Your task to perform on an android device: turn off priority inbox in the gmail app Image 0: 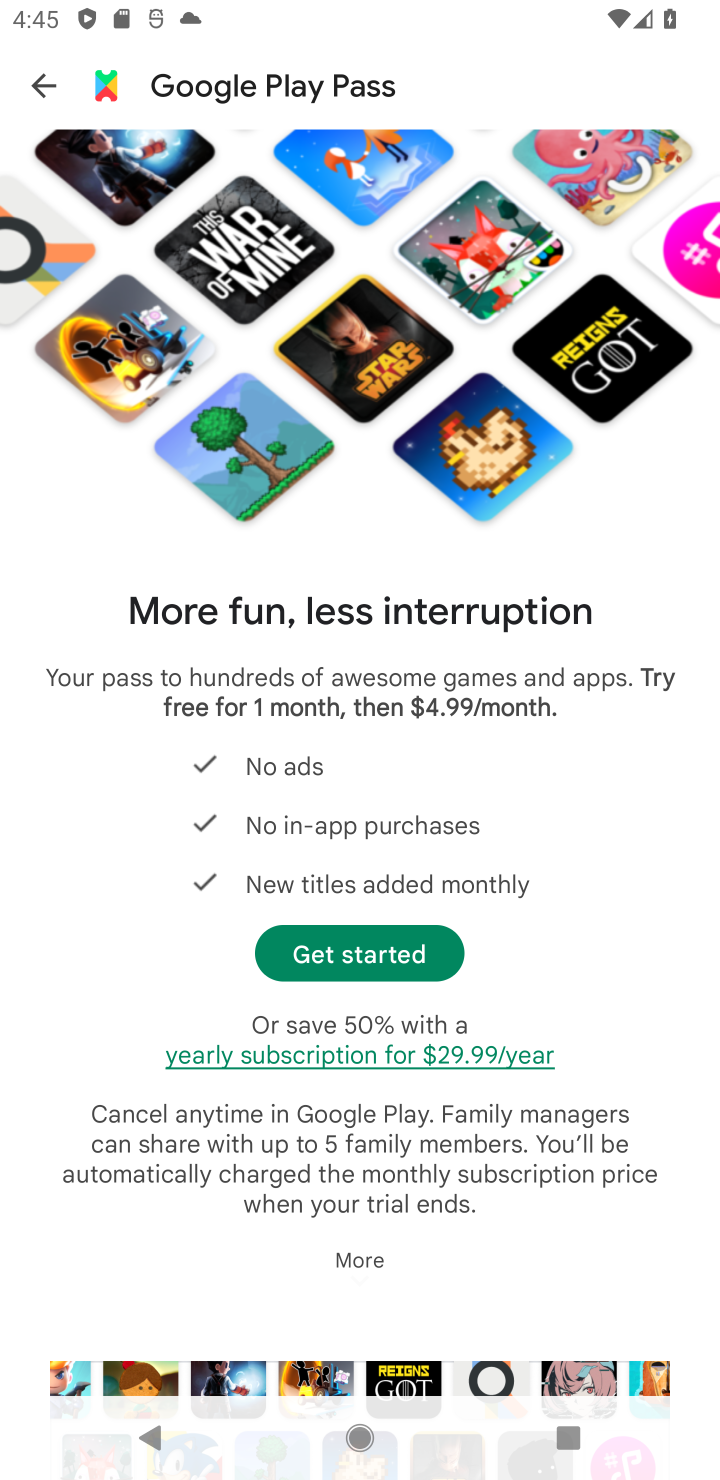
Step 0: press home button
Your task to perform on an android device: turn off priority inbox in the gmail app Image 1: 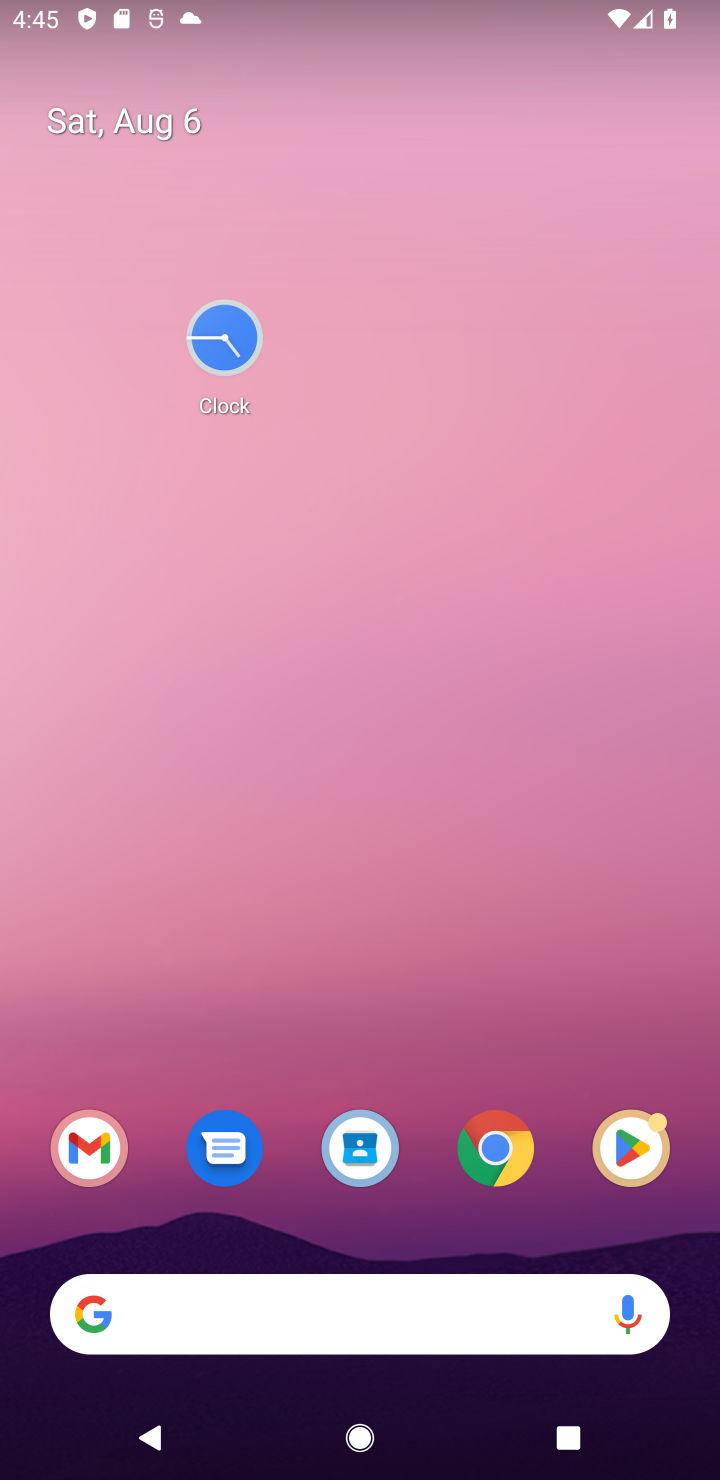
Step 1: drag from (478, 647) to (385, 10)
Your task to perform on an android device: turn off priority inbox in the gmail app Image 2: 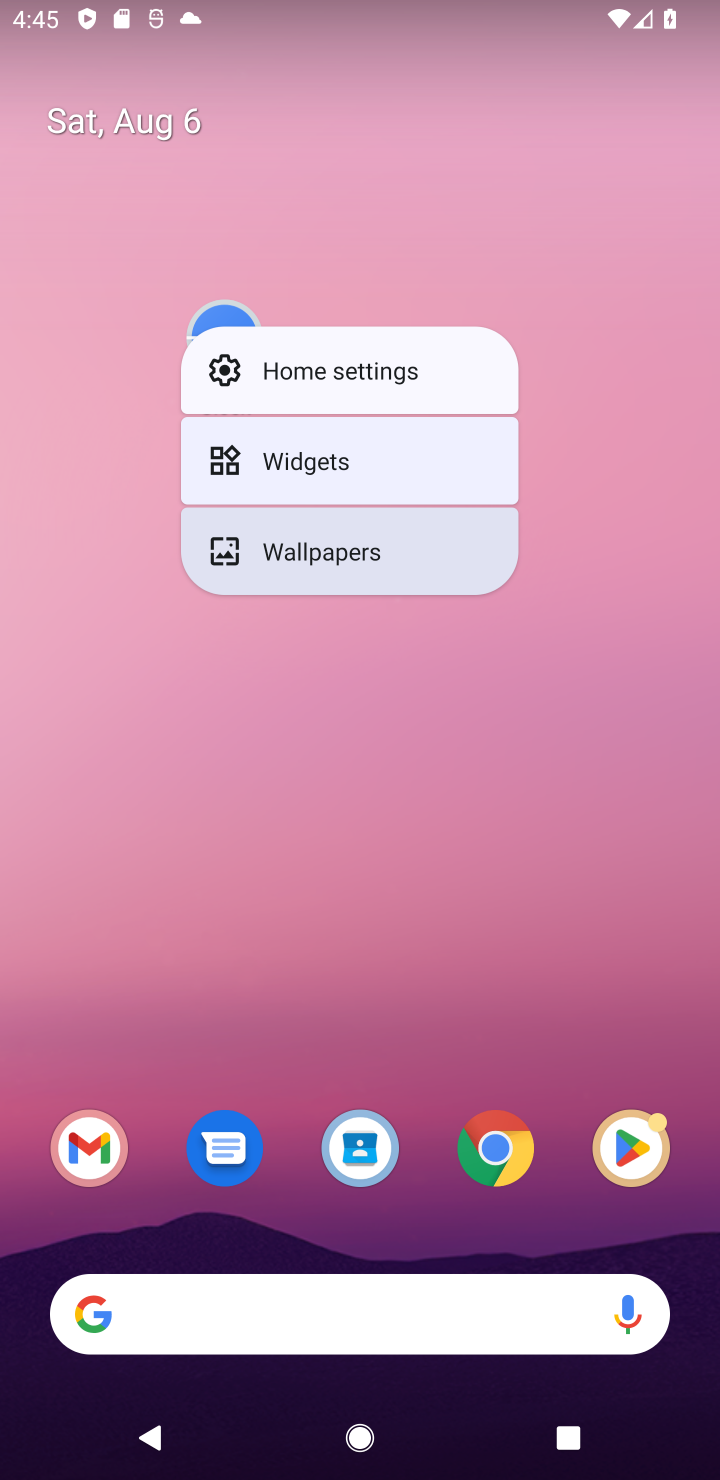
Step 2: click (410, 1227)
Your task to perform on an android device: turn off priority inbox in the gmail app Image 3: 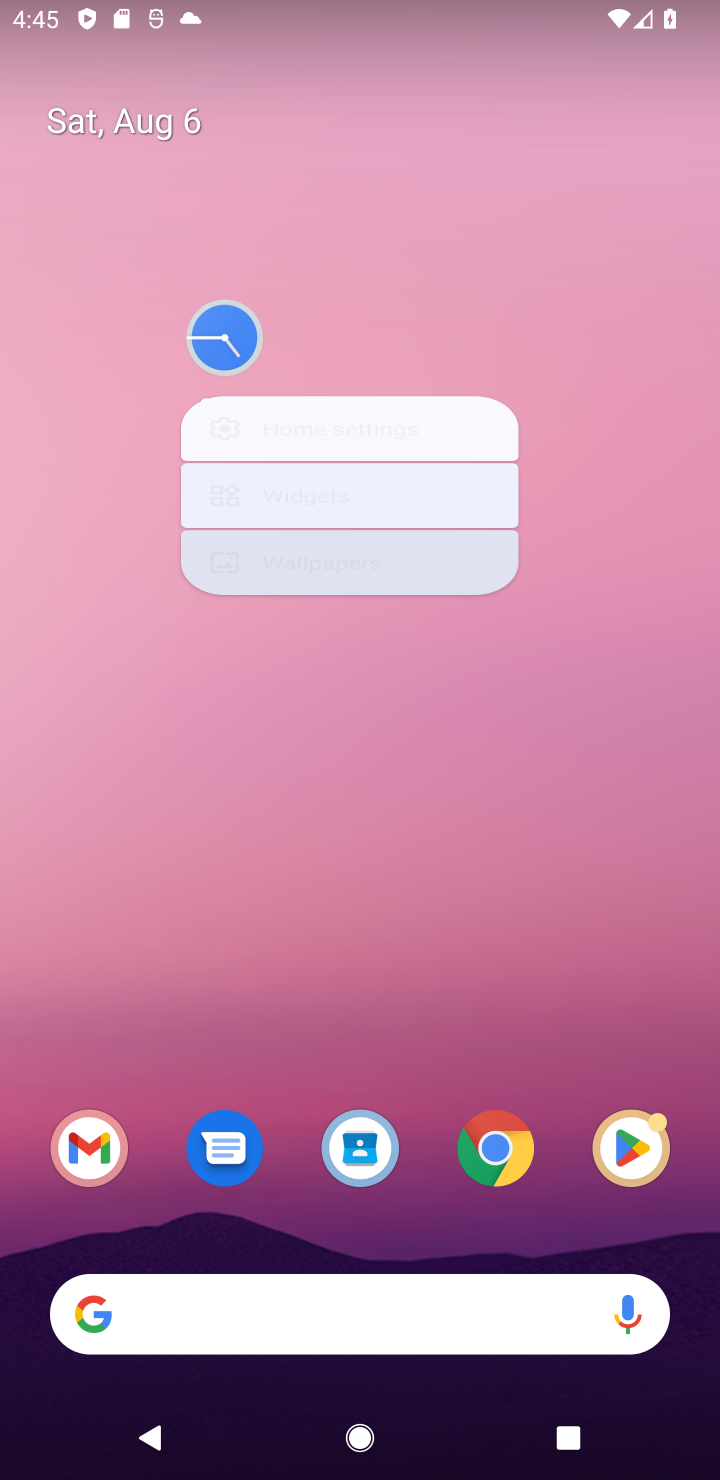
Step 3: drag from (410, 1225) to (513, 25)
Your task to perform on an android device: turn off priority inbox in the gmail app Image 4: 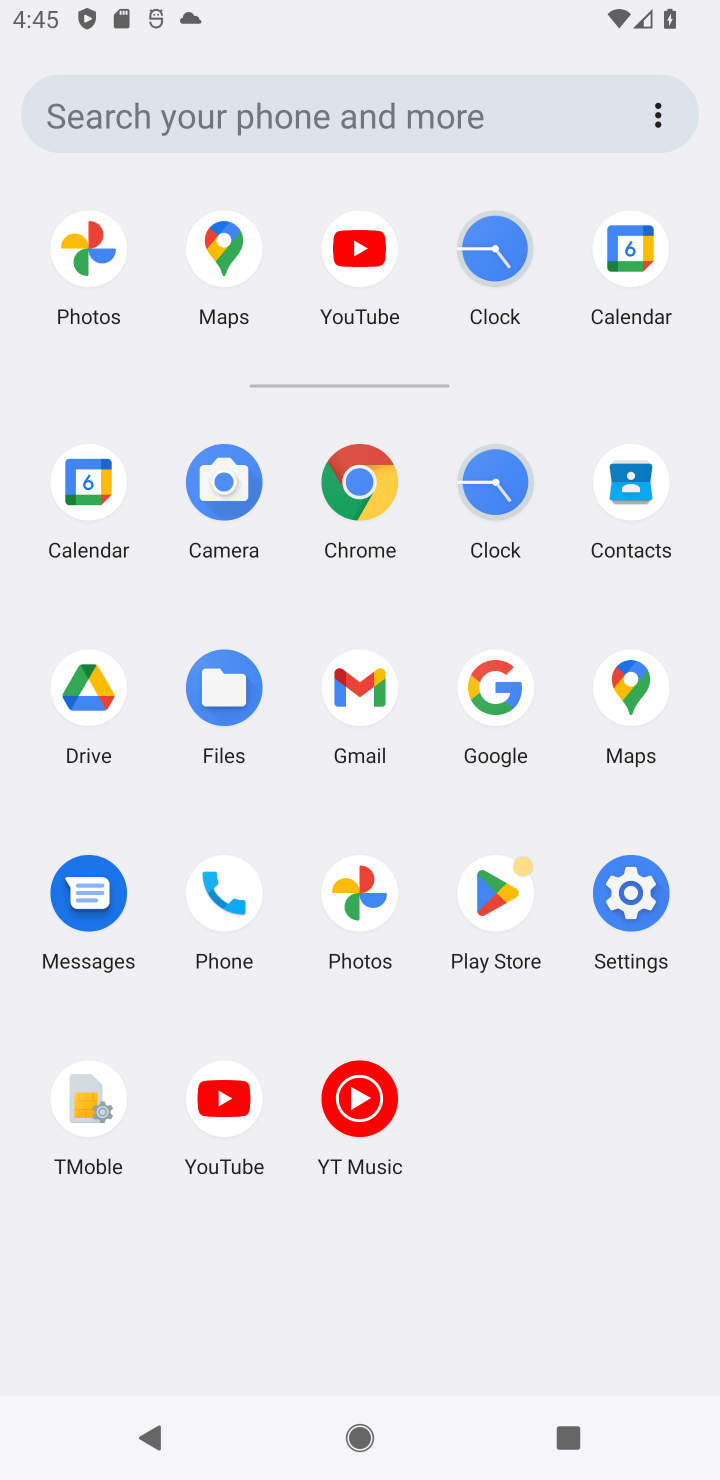
Step 4: click (348, 685)
Your task to perform on an android device: turn off priority inbox in the gmail app Image 5: 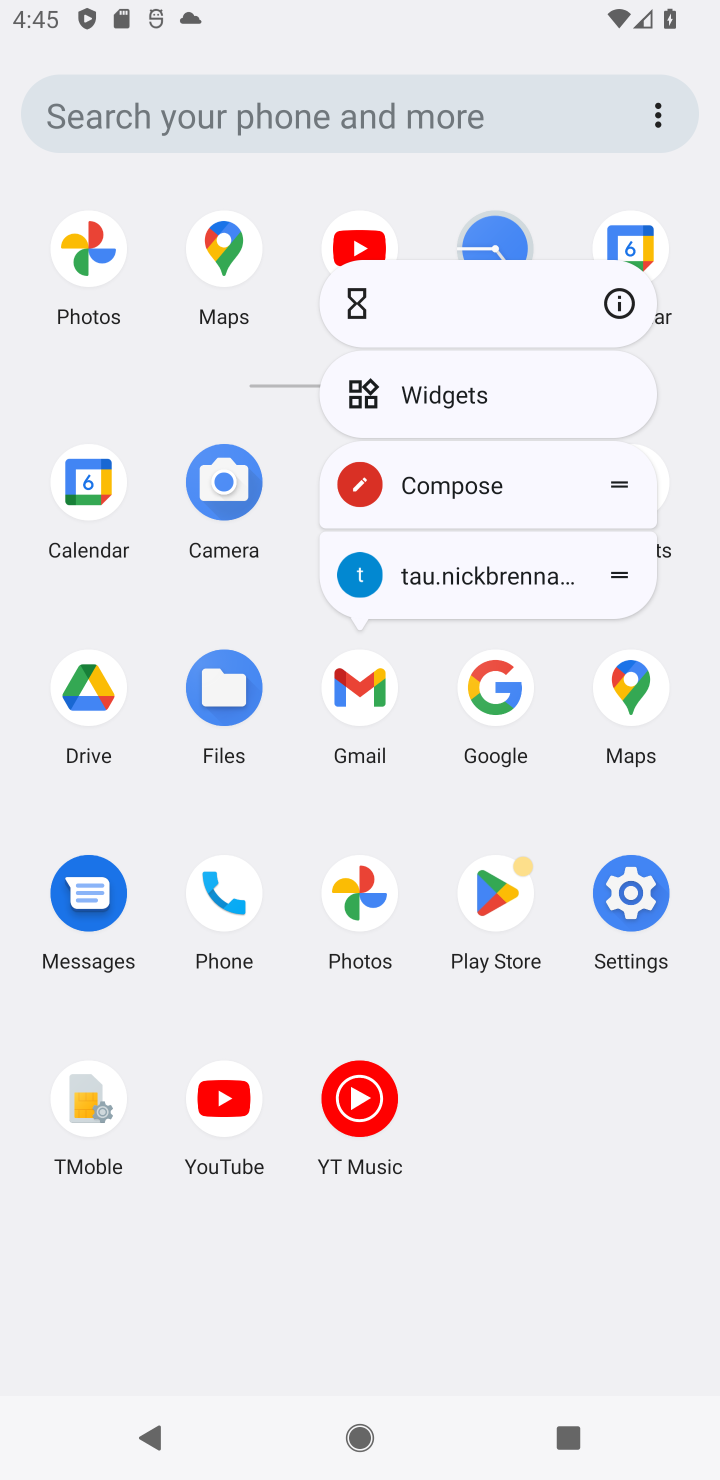
Step 5: click (621, 288)
Your task to perform on an android device: turn off priority inbox in the gmail app Image 6: 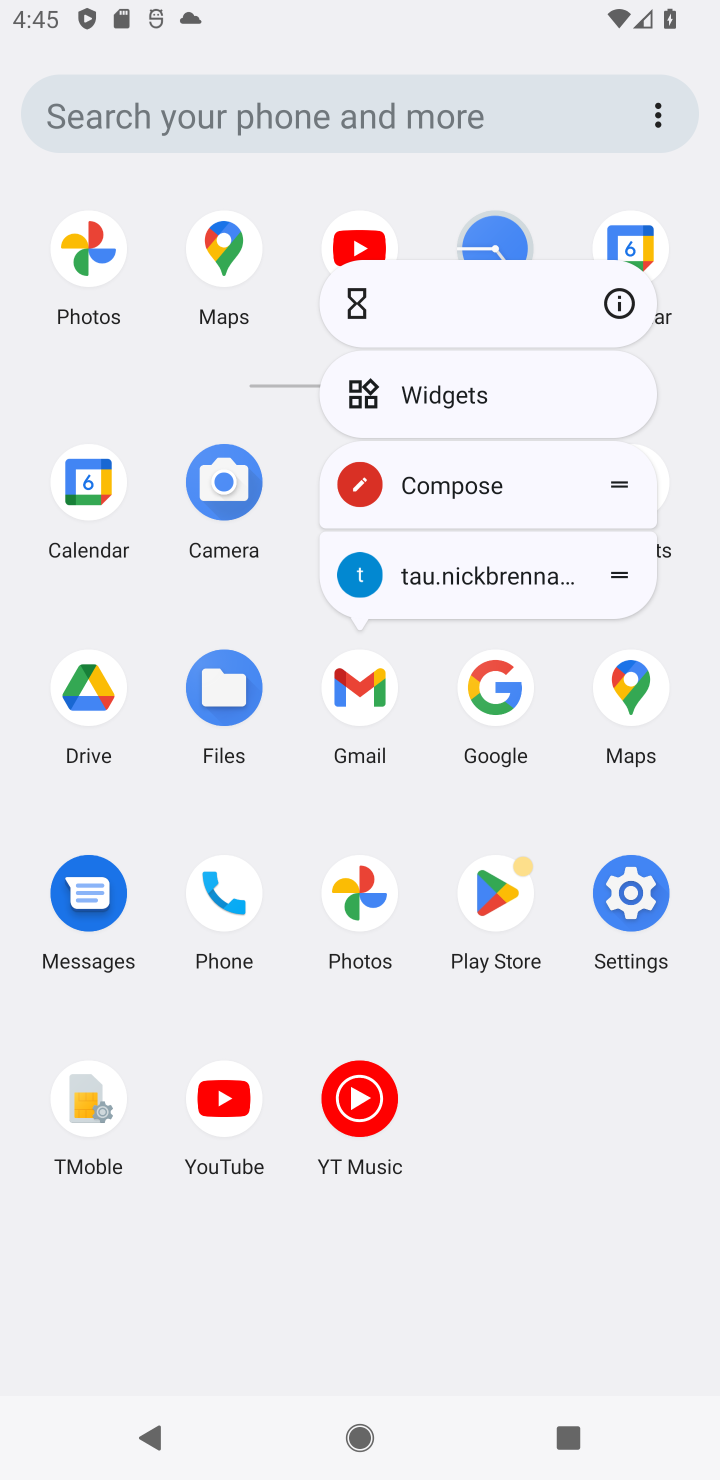
Step 6: click (378, 662)
Your task to perform on an android device: turn off priority inbox in the gmail app Image 7: 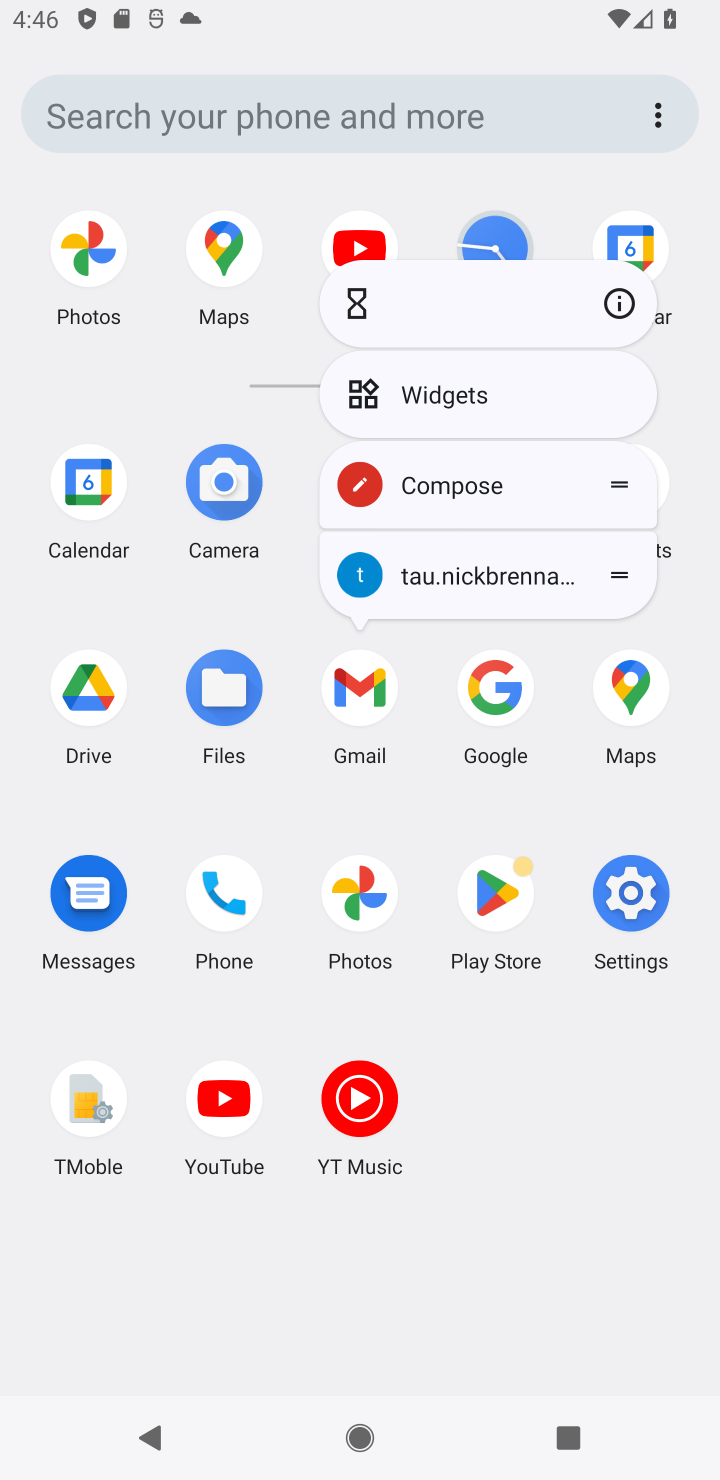
Step 7: click (621, 298)
Your task to perform on an android device: turn off priority inbox in the gmail app Image 8: 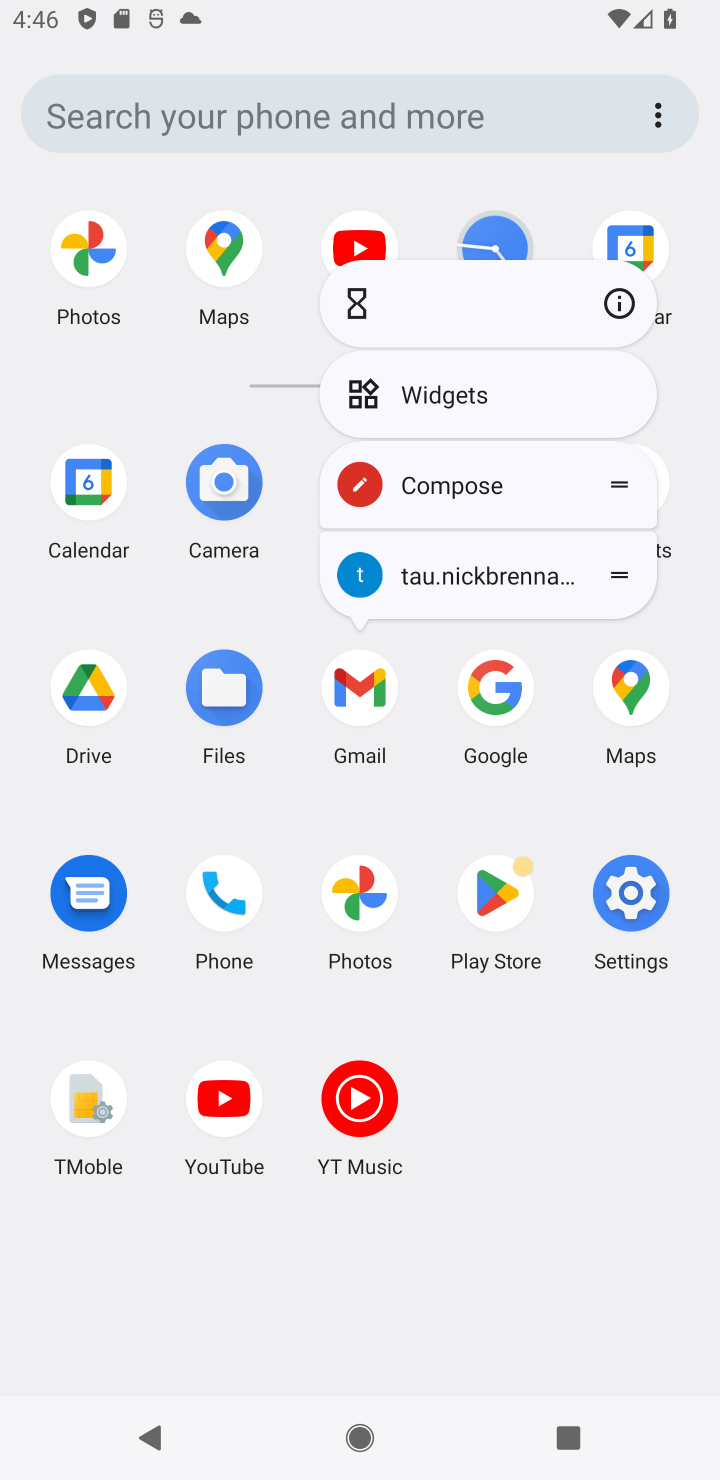
Step 8: click (621, 298)
Your task to perform on an android device: turn off priority inbox in the gmail app Image 9: 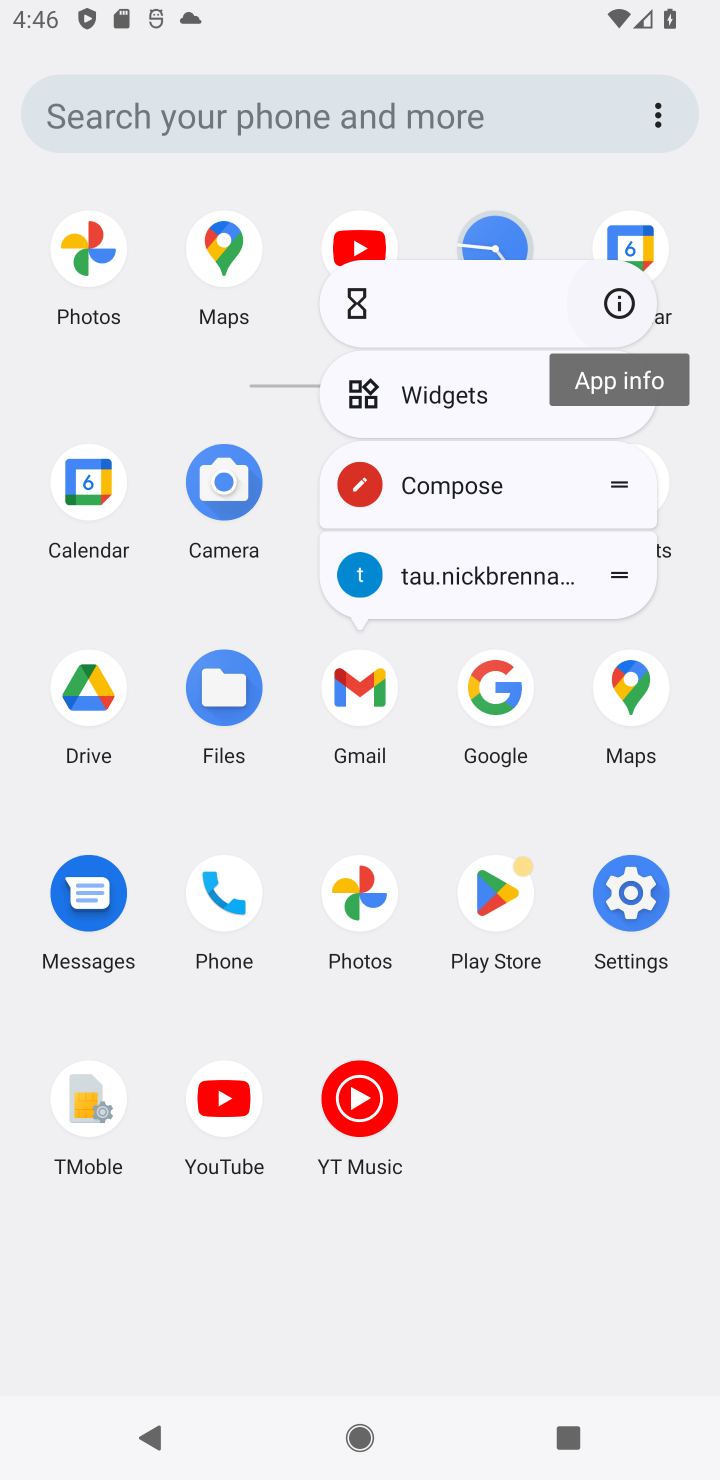
Step 9: click (354, 681)
Your task to perform on an android device: turn off priority inbox in the gmail app Image 10: 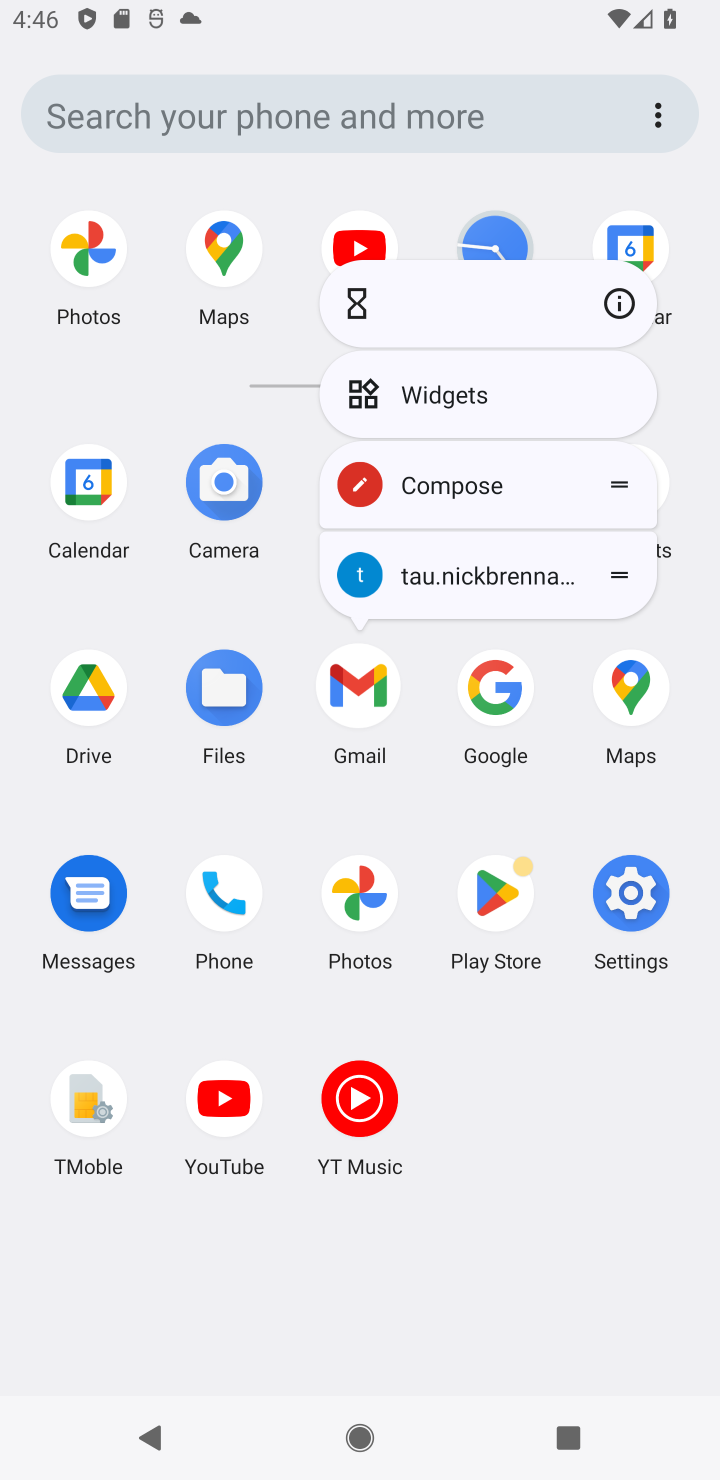
Step 10: click (352, 679)
Your task to perform on an android device: turn off priority inbox in the gmail app Image 11: 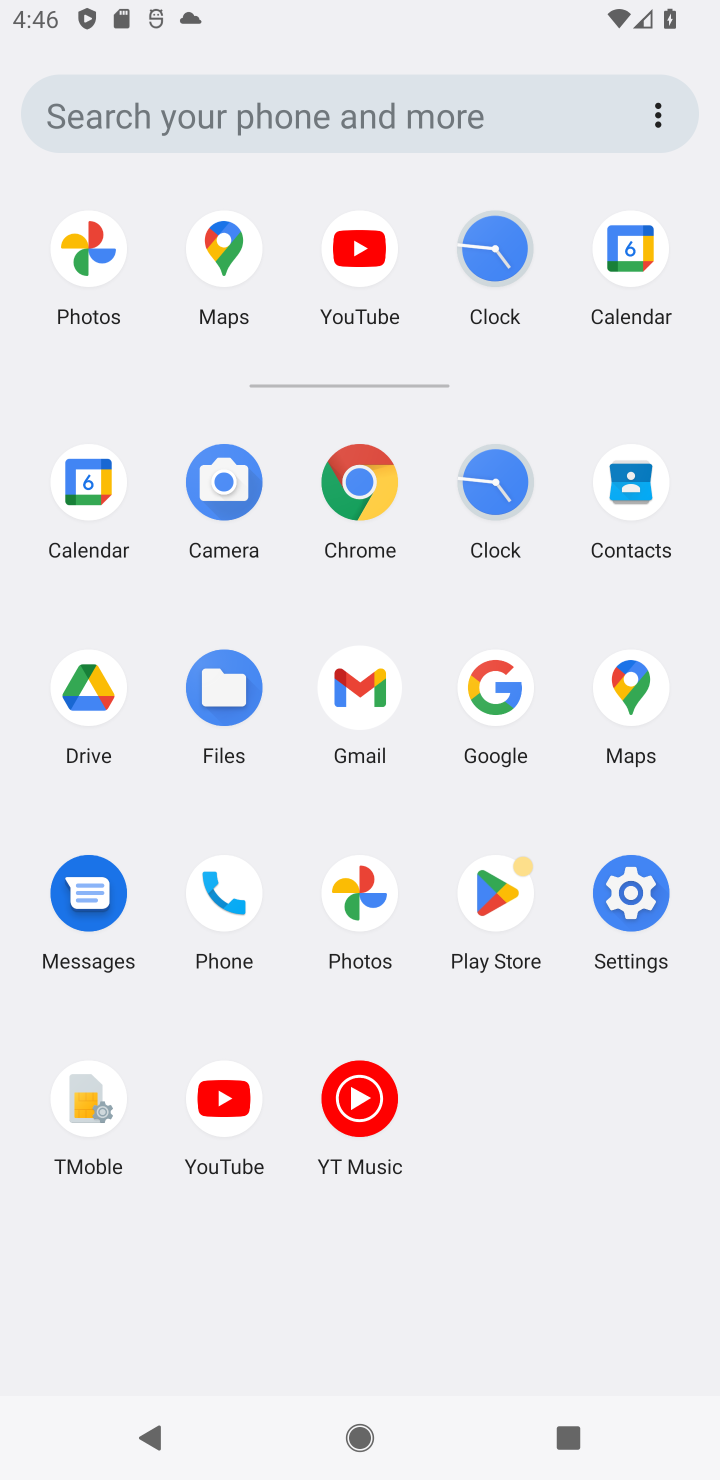
Step 11: click (352, 675)
Your task to perform on an android device: turn off priority inbox in the gmail app Image 12: 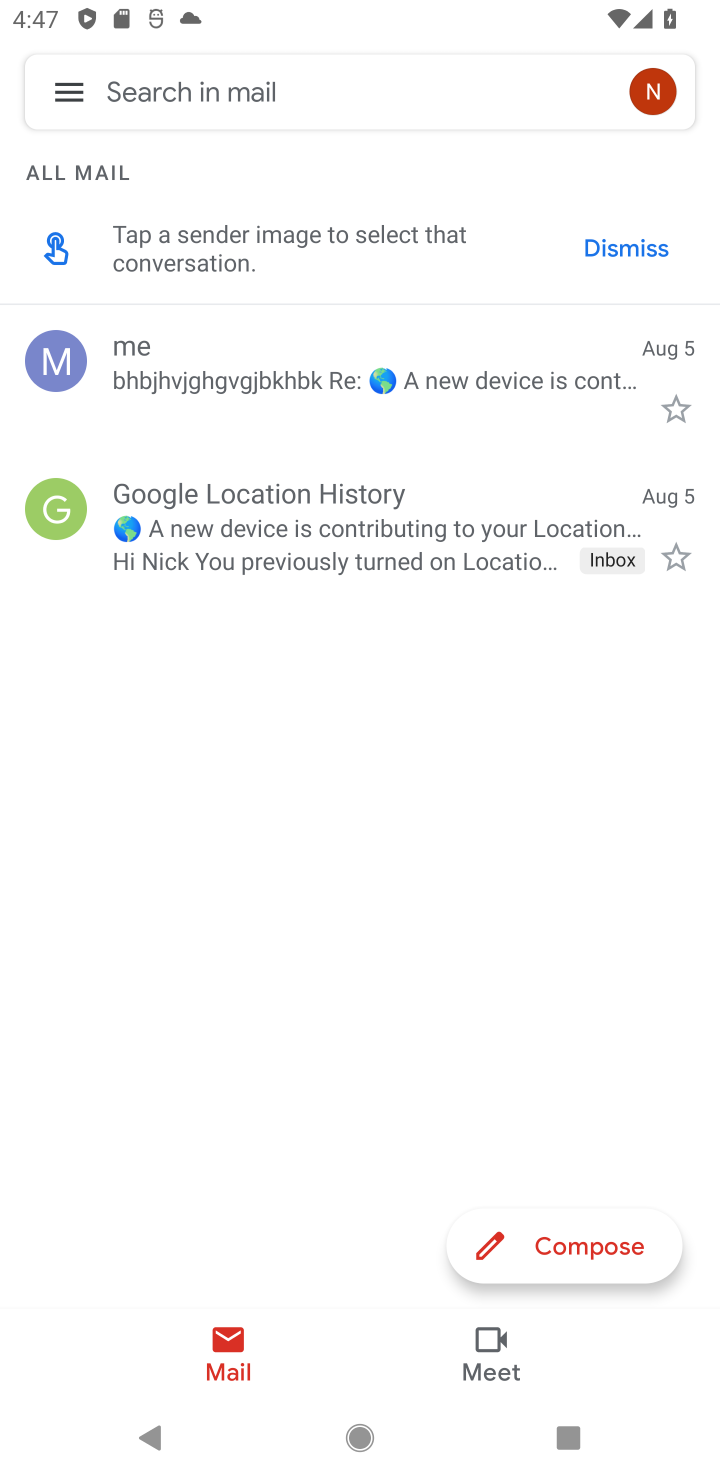
Step 12: drag from (359, 1105) to (432, 484)
Your task to perform on an android device: turn off priority inbox in the gmail app Image 13: 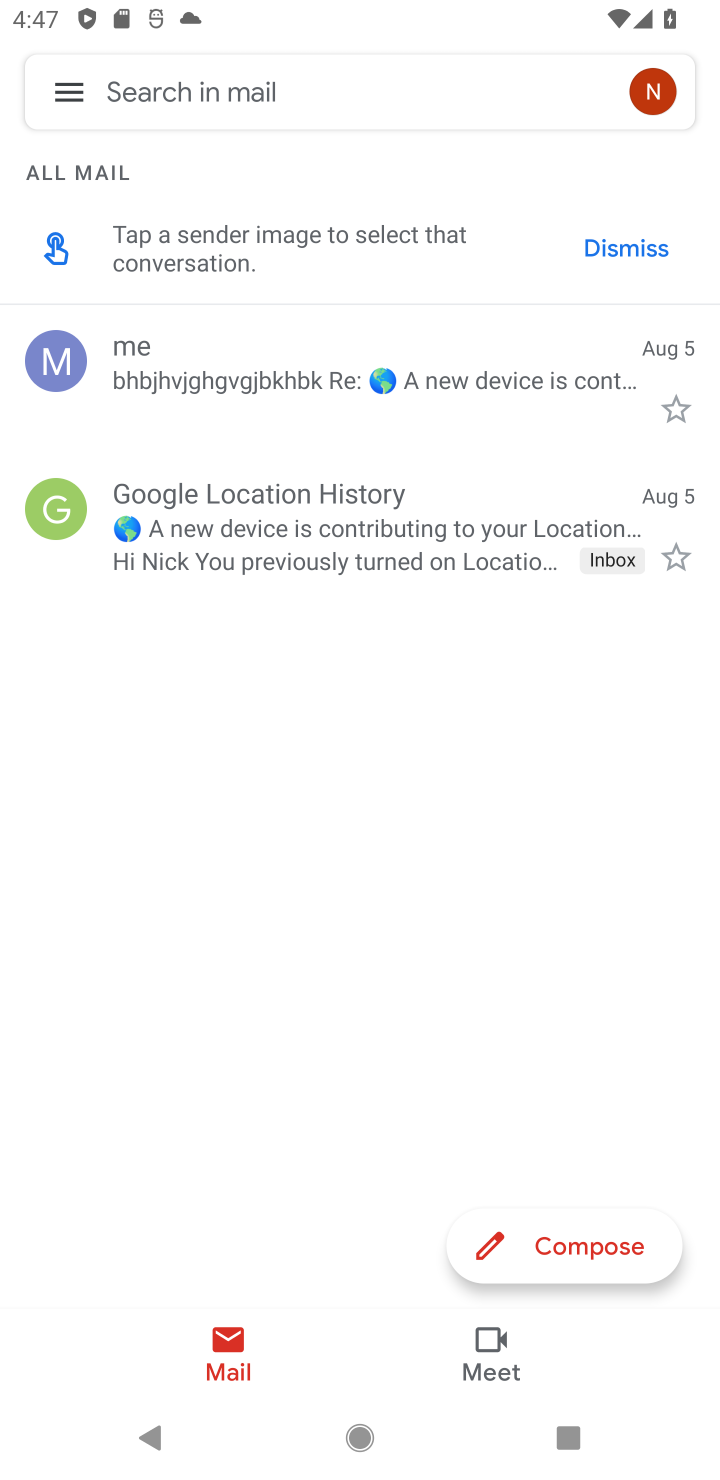
Step 13: drag from (378, 1048) to (458, 310)
Your task to perform on an android device: turn off priority inbox in the gmail app Image 14: 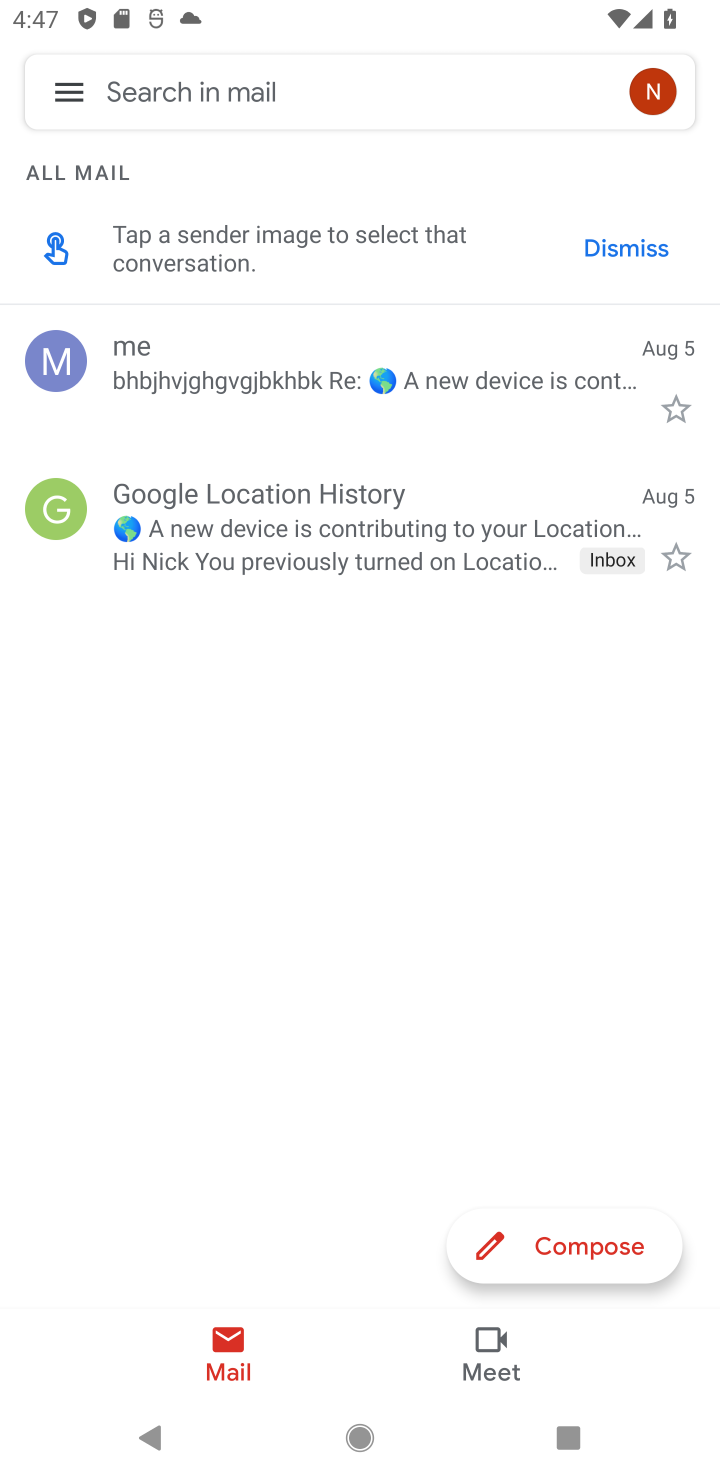
Step 14: drag from (340, 856) to (428, 415)
Your task to perform on an android device: turn off priority inbox in the gmail app Image 15: 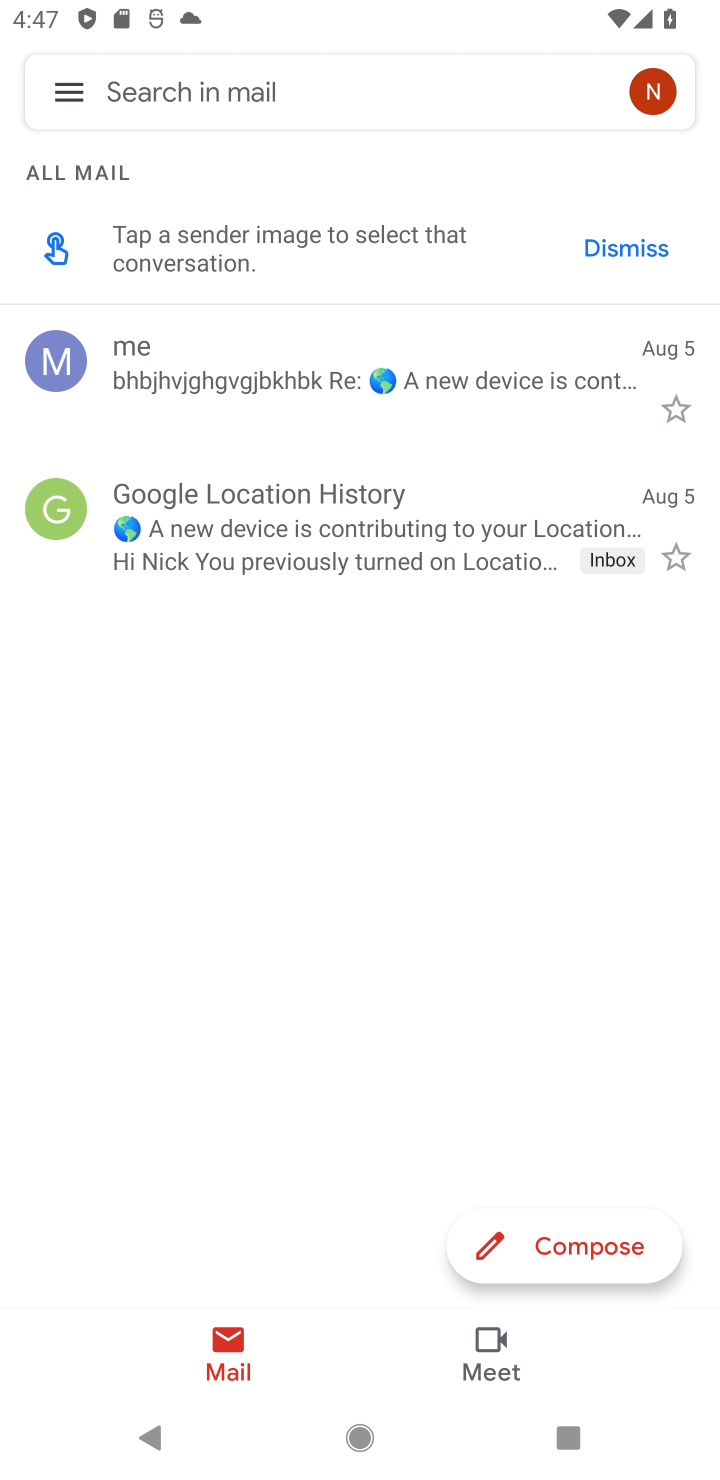
Step 15: click (66, 82)
Your task to perform on an android device: turn off priority inbox in the gmail app Image 16: 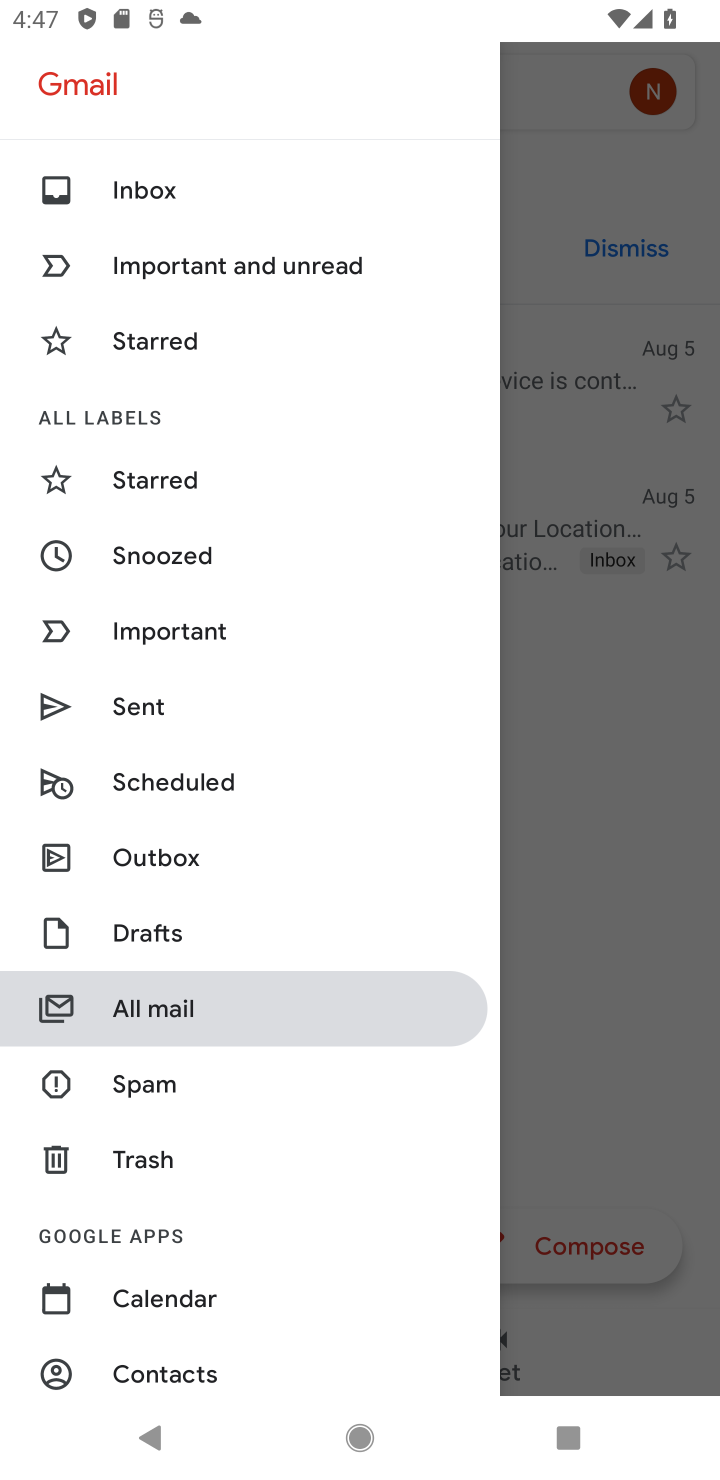
Step 16: drag from (154, 1081) to (336, 241)
Your task to perform on an android device: turn off priority inbox in the gmail app Image 17: 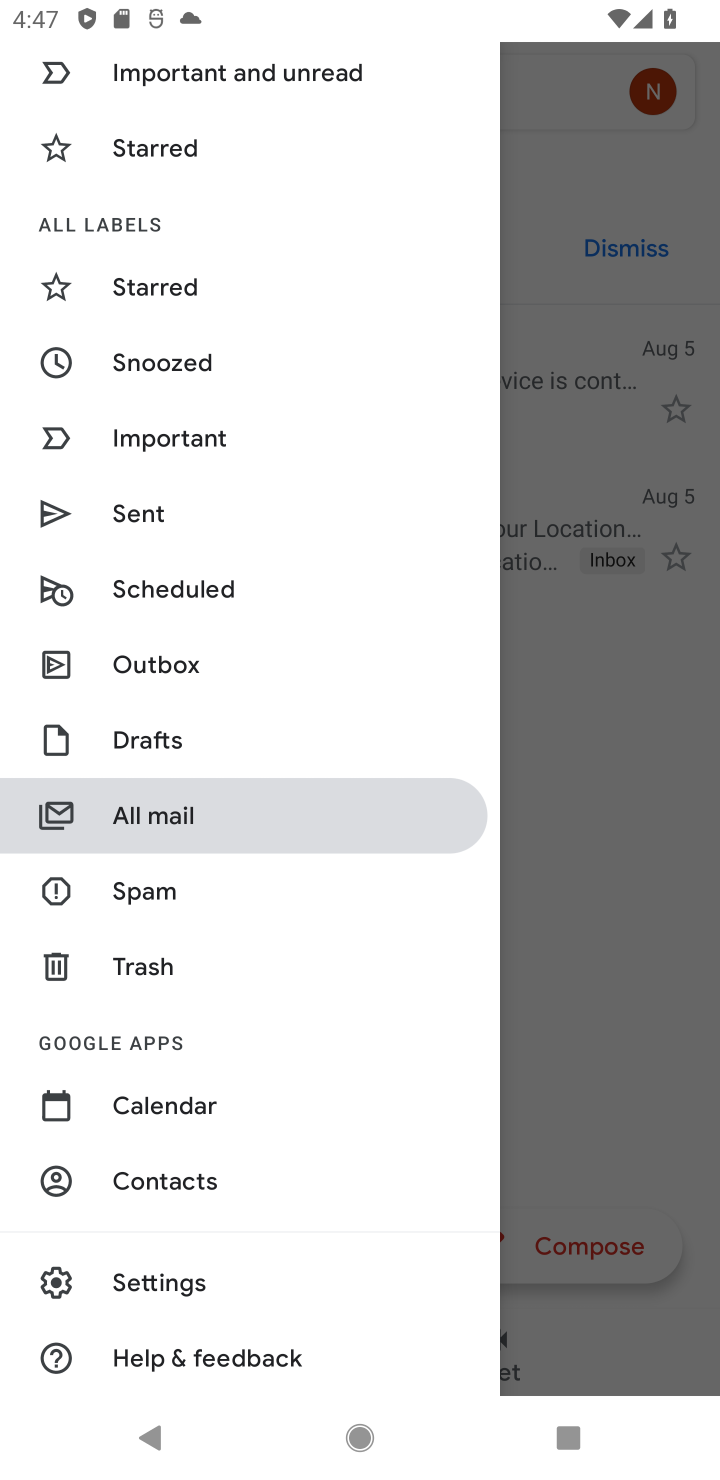
Step 17: click (121, 1295)
Your task to perform on an android device: turn off priority inbox in the gmail app Image 18: 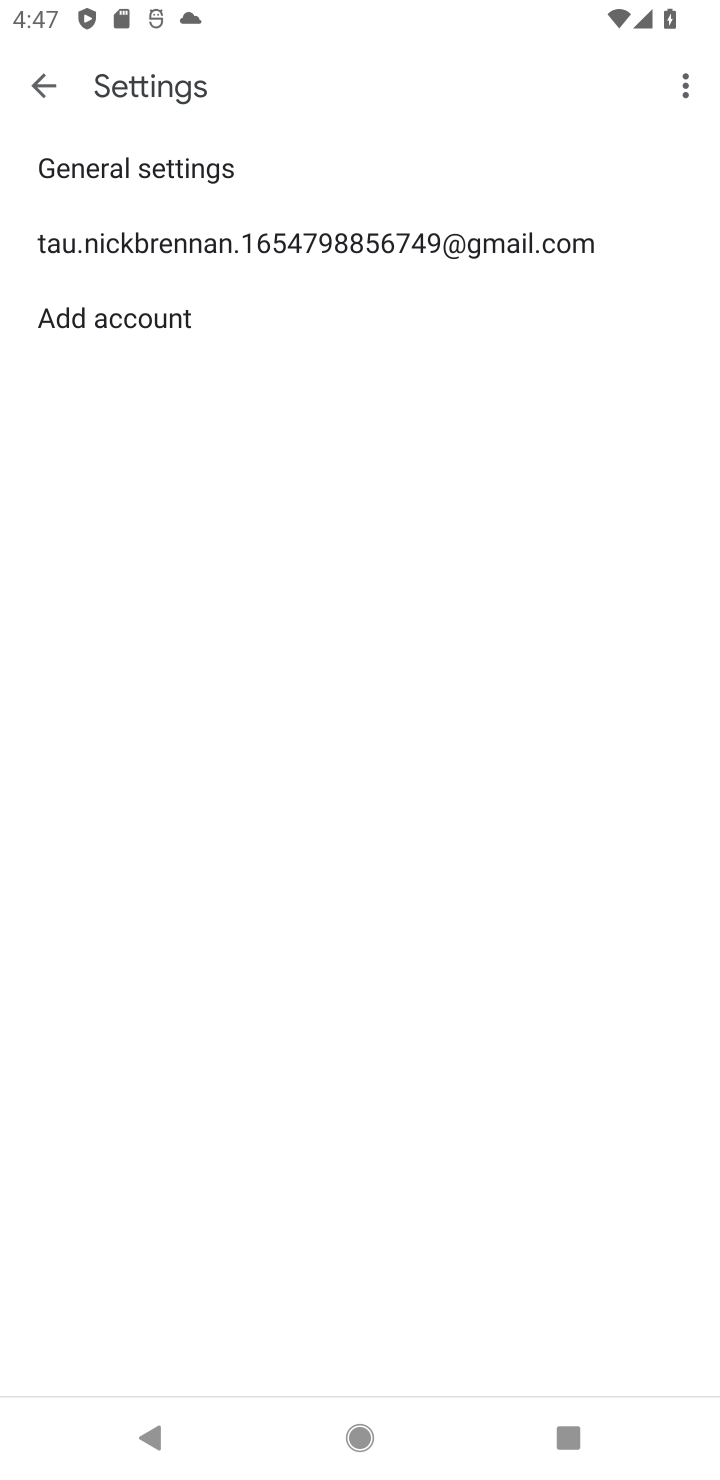
Step 18: click (169, 238)
Your task to perform on an android device: turn off priority inbox in the gmail app Image 19: 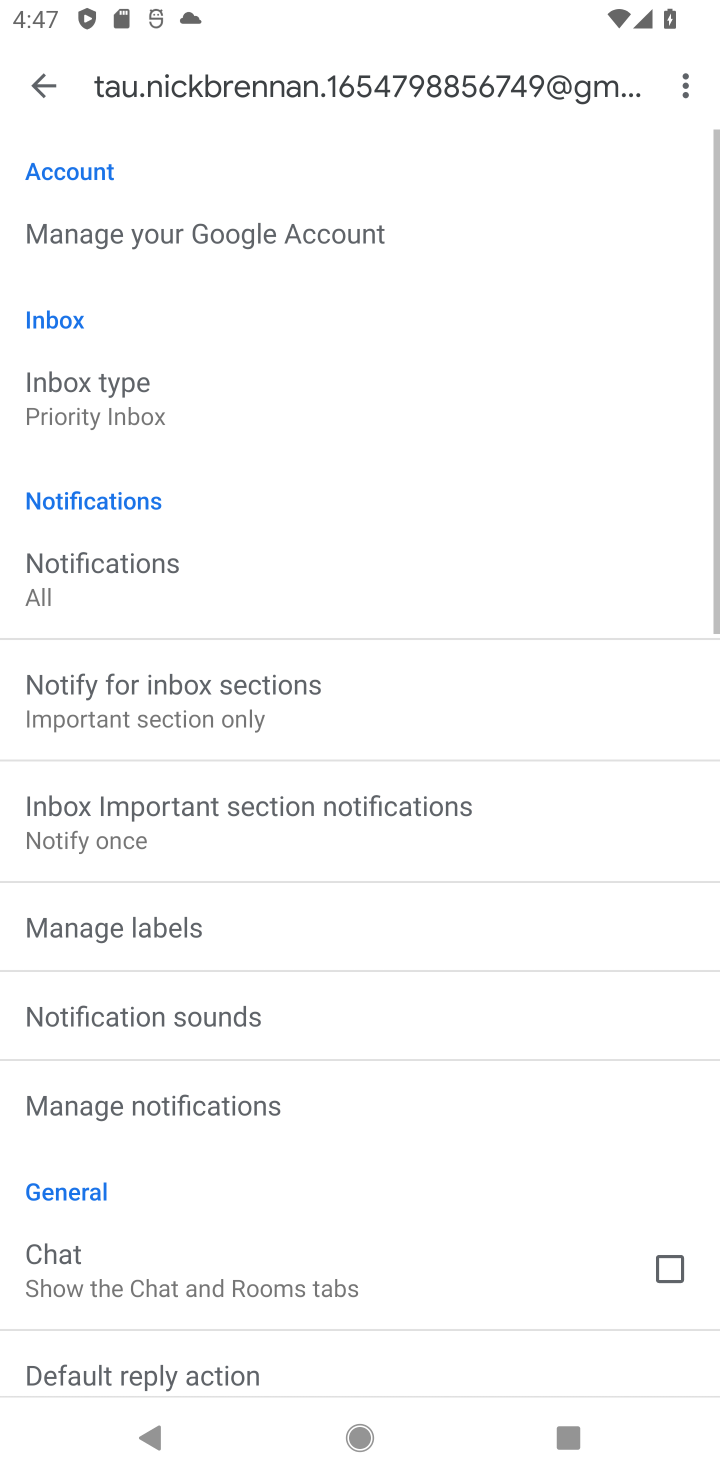
Step 19: drag from (220, 860) to (347, 1413)
Your task to perform on an android device: turn off priority inbox in the gmail app Image 20: 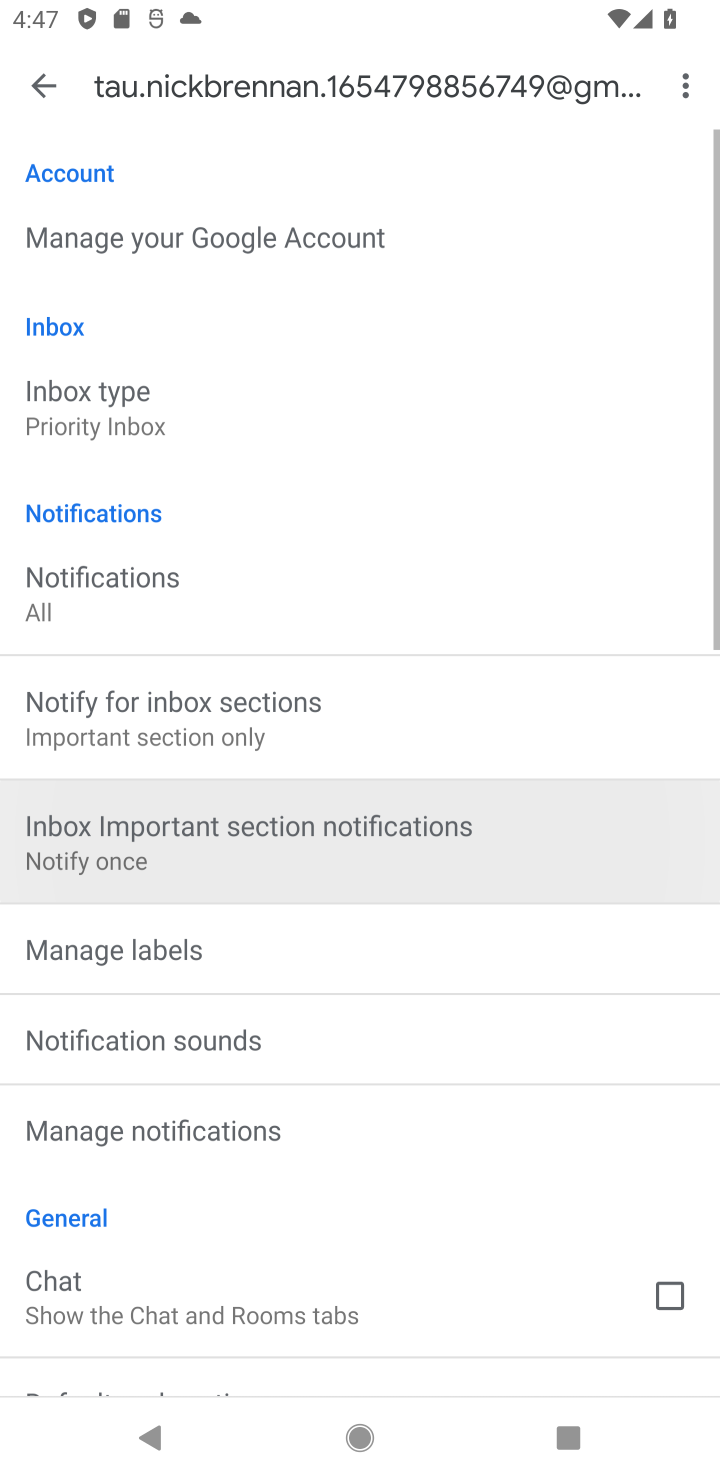
Step 20: click (202, 401)
Your task to perform on an android device: turn off priority inbox in the gmail app Image 21: 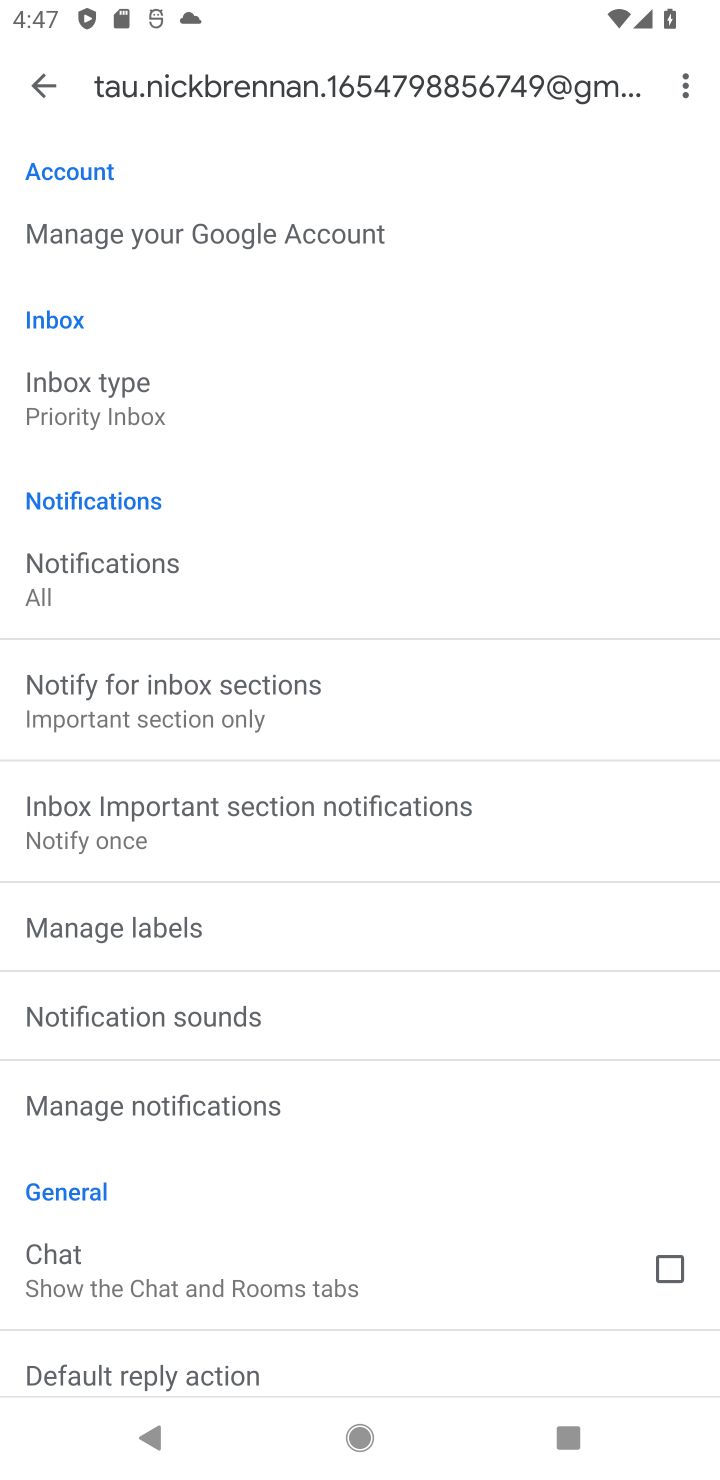
Step 21: click (202, 401)
Your task to perform on an android device: turn off priority inbox in the gmail app Image 22: 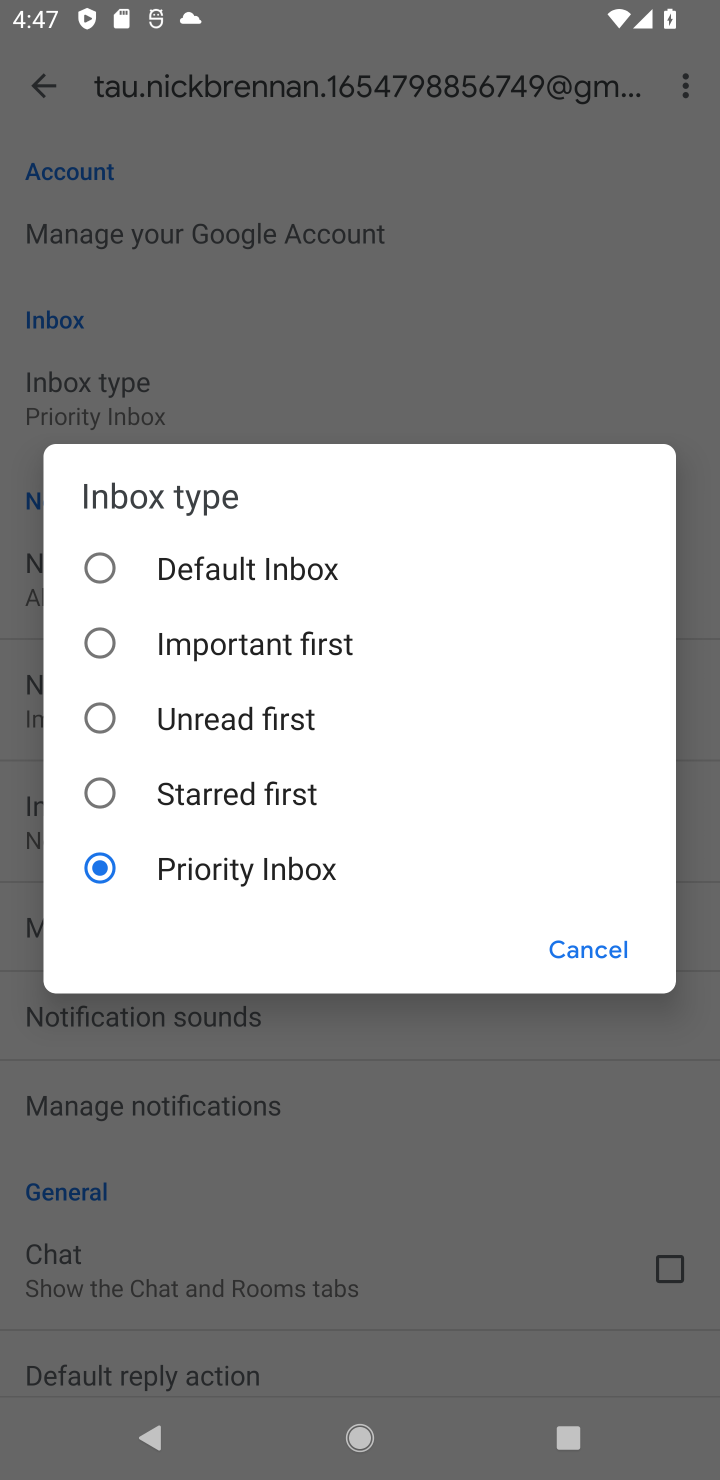
Step 22: click (103, 572)
Your task to perform on an android device: turn off priority inbox in the gmail app Image 23: 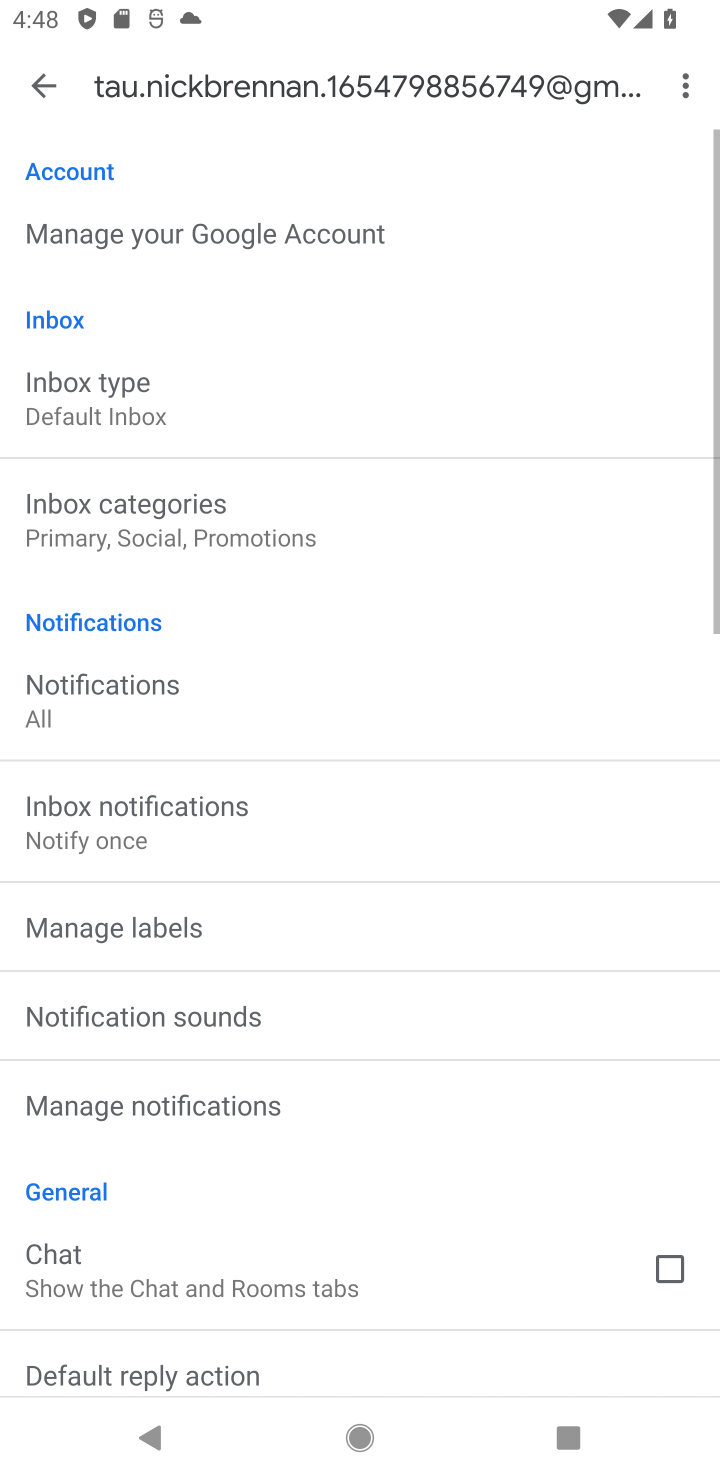
Step 23: task complete